Your task to perform on an android device: change the clock display to analog Image 0: 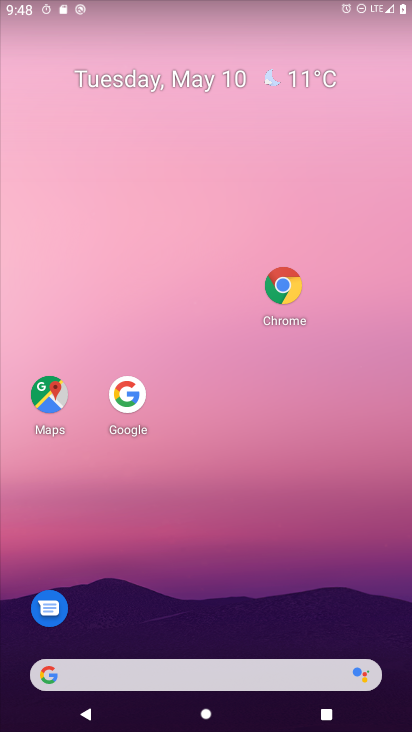
Step 0: drag from (143, 691) to (297, 119)
Your task to perform on an android device: change the clock display to analog Image 1: 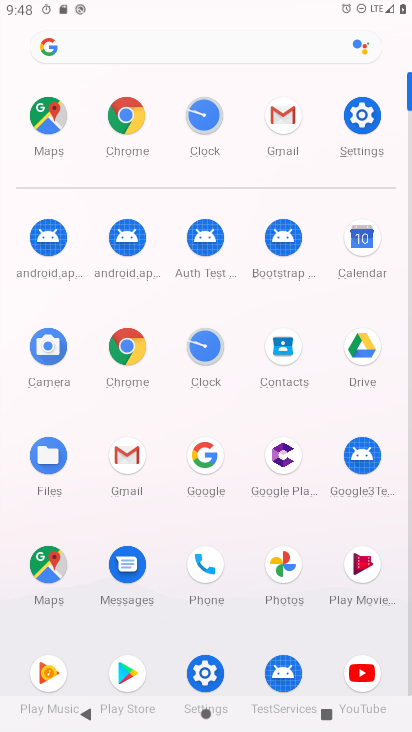
Step 1: click (204, 130)
Your task to perform on an android device: change the clock display to analog Image 2: 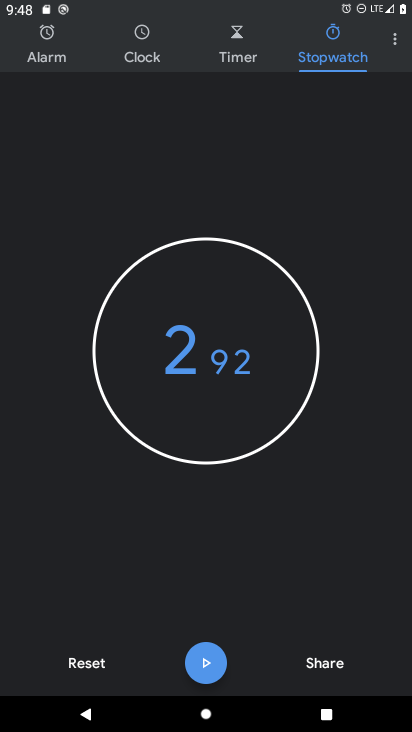
Step 2: click (387, 40)
Your task to perform on an android device: change the clock display to analog Image 3: 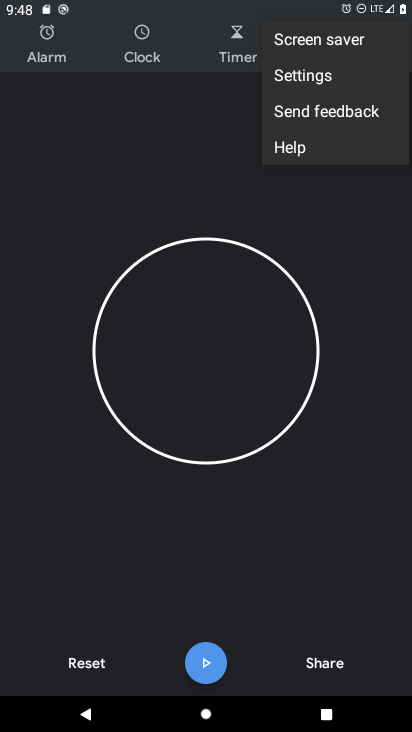
Step 3: click (320, 83)
Your task to perform on an android device: change the clock display to analog Image 4: 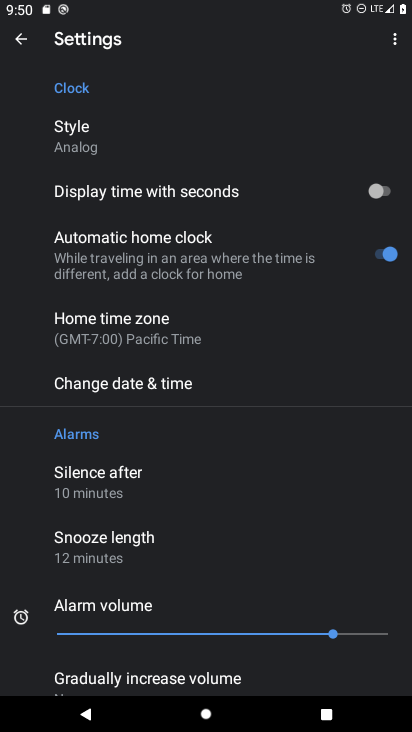
Step 4: task complete